Your task to perform on an android device: turn off location Image 0: 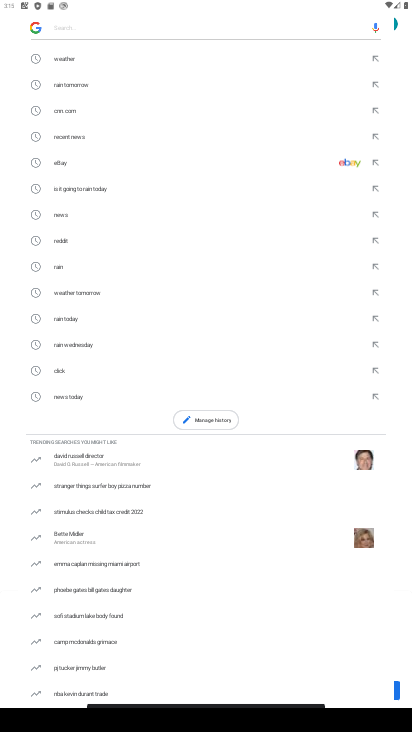
Step 0: press home button
Your task to perform on an android device: turn off location Image 1: 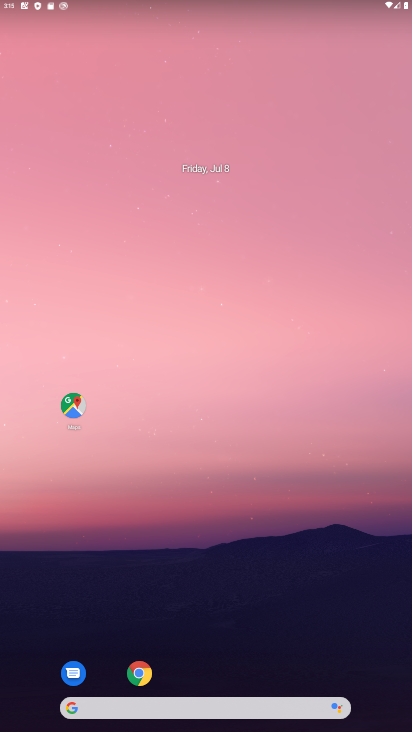
Step 1: drag from (195, 525) to (272, 0)
Your task to perform on an android device: turn off location Image 2: 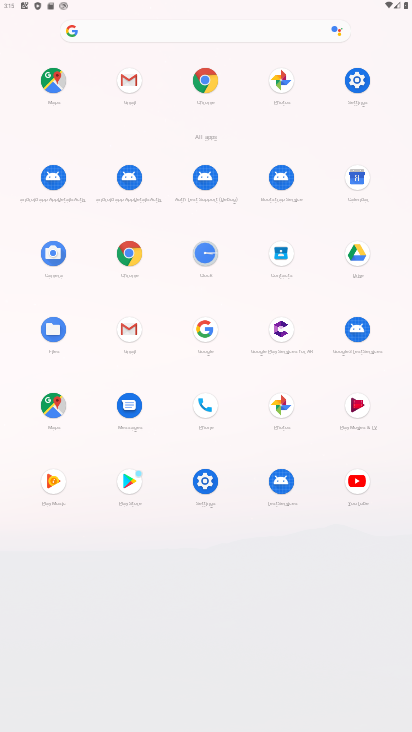
Step 2: click (203, 472)
Your task to perform on an android device: turn off location Image 3: 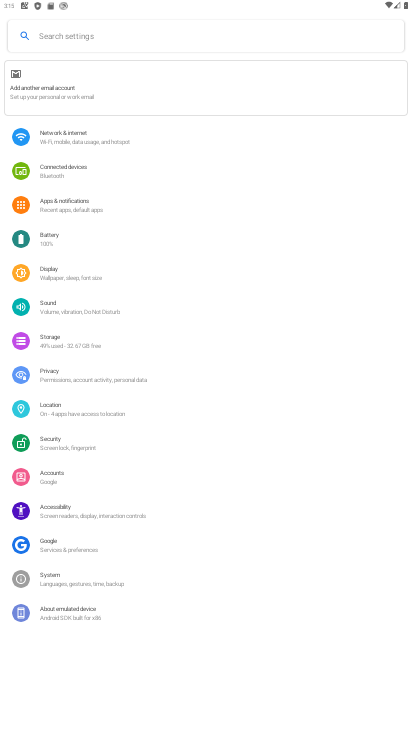
Step 3: click (81, 406)
Your task to perform on an android device: turn off location Image 4: 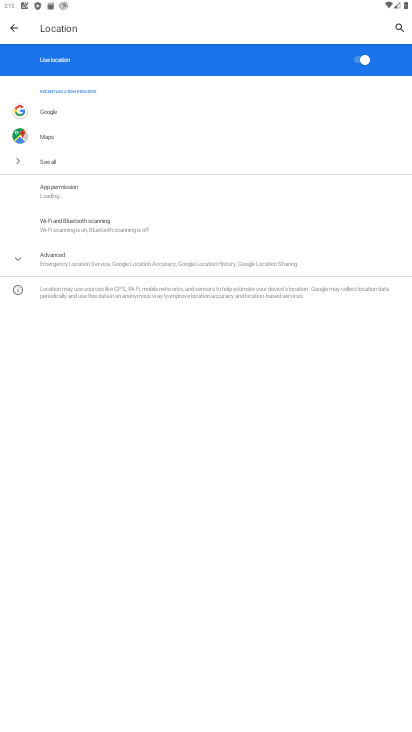
Step 4: click (352, 62)
Your task to perform on an android device: turn off location Image 5: 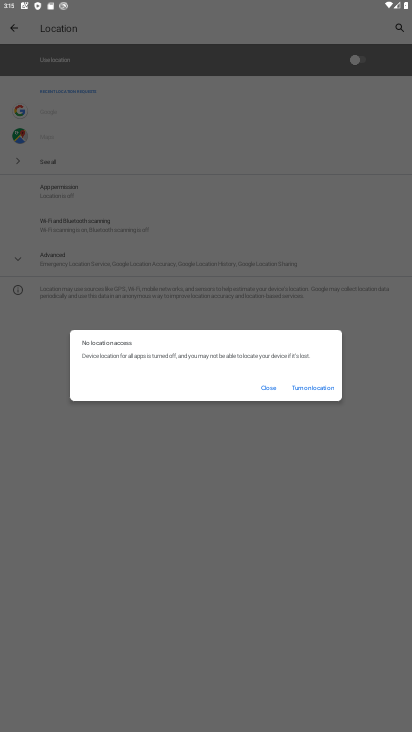
Step 5: click (273, 389)
Your task to perform on an android device: turn off location Image 6: 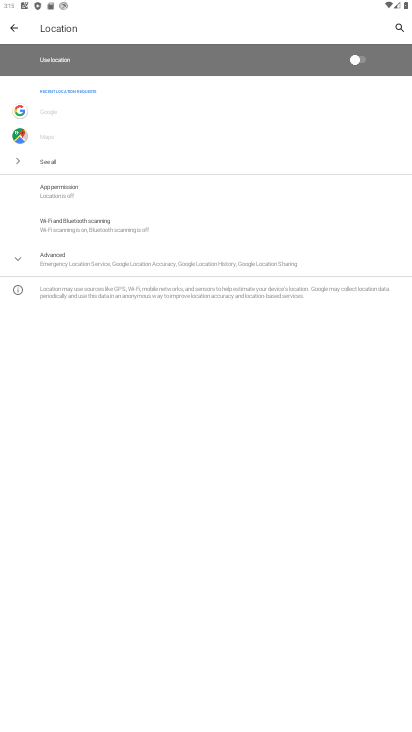
Step 6: task complete